Your task to perform on an android device: Open maps Image 0: 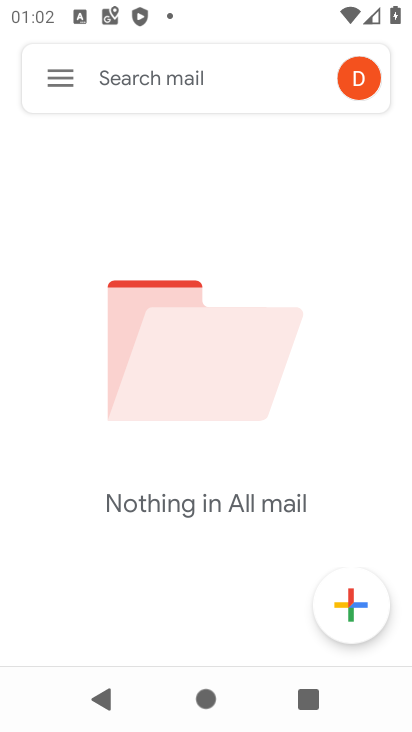
Step 0: press home button
Your task to perform on an android device: Open maps Image 1: 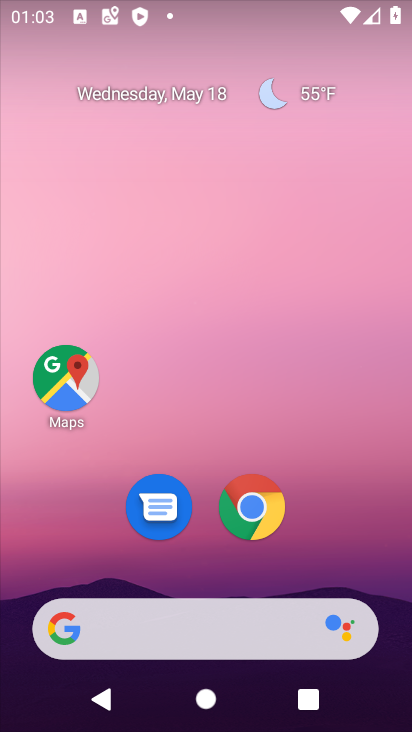
Step 1: click (56, 372)
Your task to perform on an android device: Open maps Image 2: 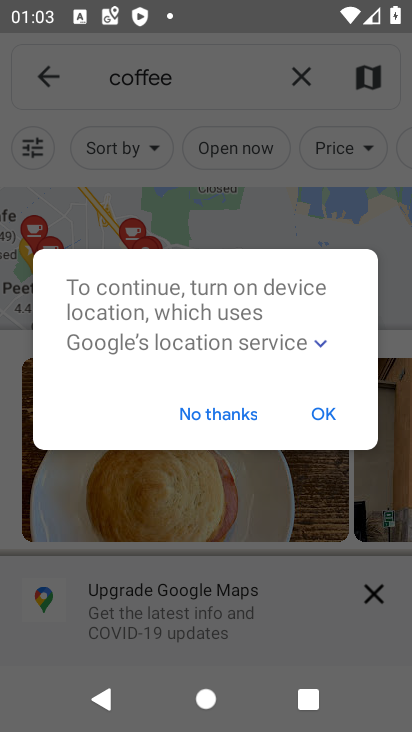
Step 2: click (318, 415)
Your task to perform on an android device: Open maps Image 3: 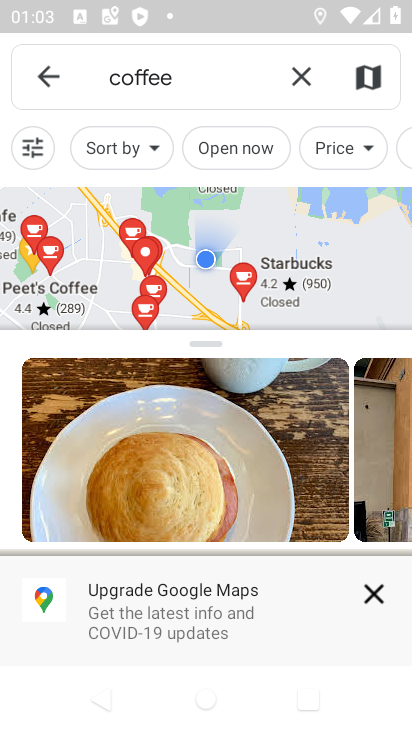
Step 3: click (299, 82)
Your task to perform on an android device: Open maps Image 4: 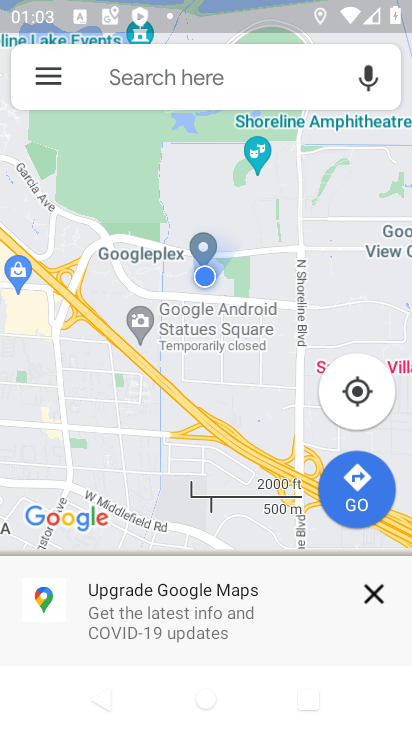
Step 4: task complete